Your task to perform on an android device: delete the emails in spam in the gmail app Image 0: 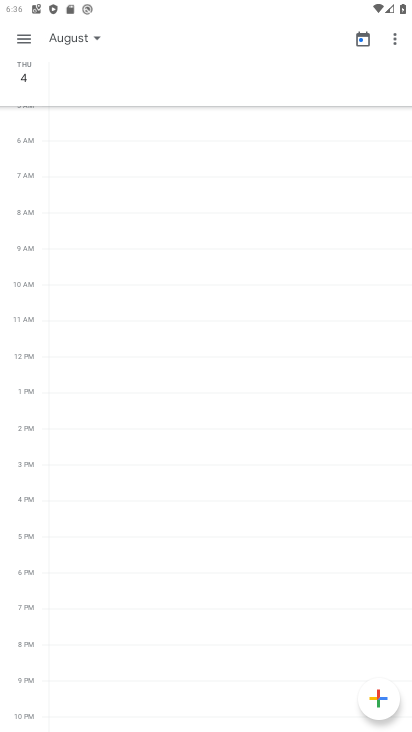
Step 0: press home button
Your task to perform on an android device: delete the emails in spam in the gmail app Image 1: 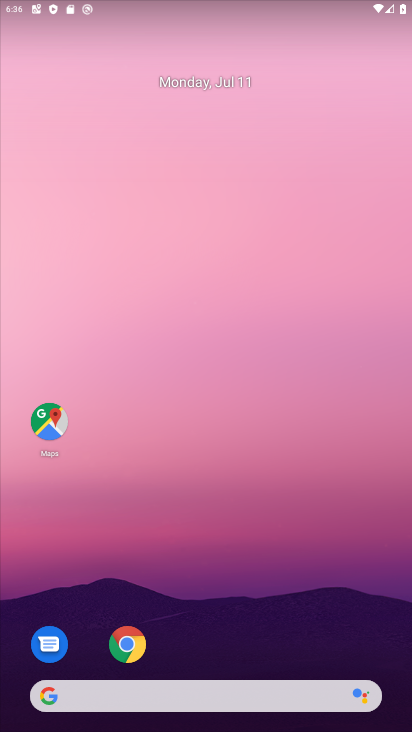
Step 1: drag from (273, 712) to (262, 100)
Your task to perform on an android device: delete the emails in spam in the gmail app Image 2: 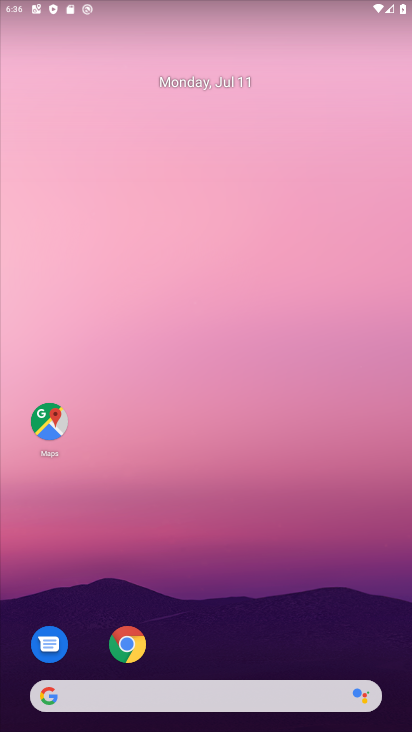
Step 2: drag from (323, 707) to (338, 2)
Your task to perform on an android device: delete the emails in spam in the gmail app Image 3: 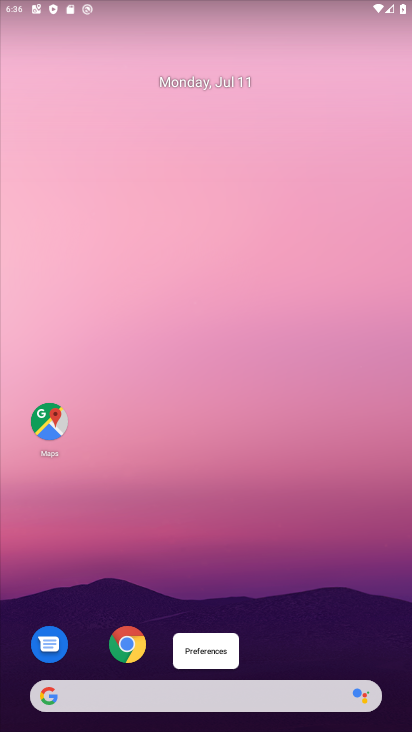
Step 3: click (351, 500)
Your task to perform on an android device: delete the emails in spam in the gmail app Image 4: 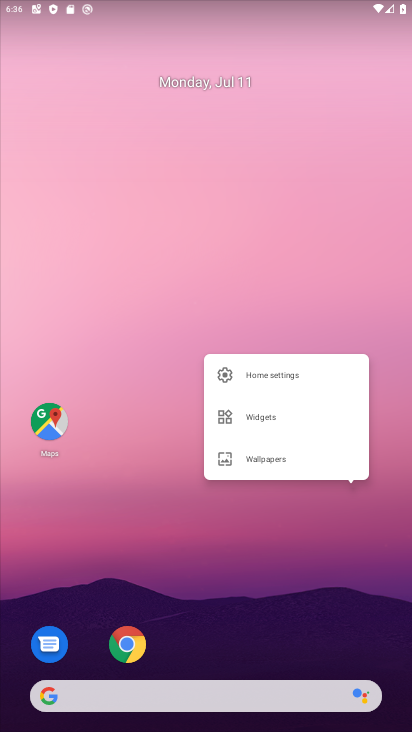
Step 4: drag from (252, 689) to (255, 444)
Your task to perform on an android device: delete the emails in spam in the gmail app Image 5: 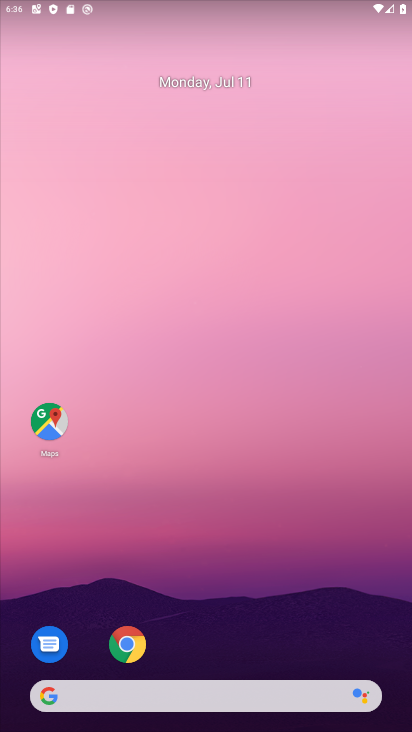
Step 5: drag from (254, 542) to (241, 50)
Your task to perform on an android device: delete the emails in spam in the gmail app Image 6: 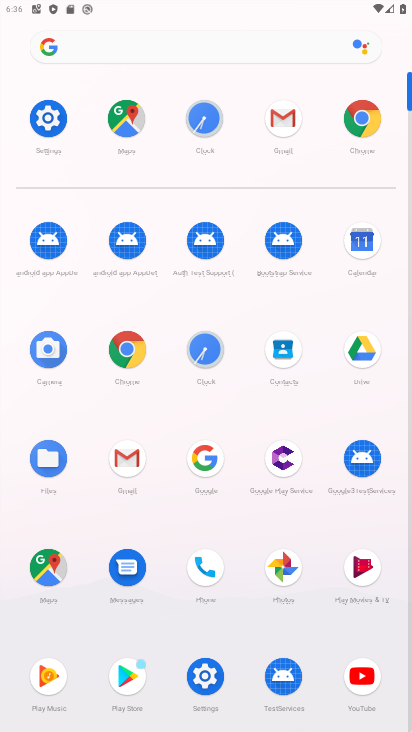
Step 6: click (136, 458)
Your task to perform on an android device: delete the emails in spam in the gmail app Image 7: 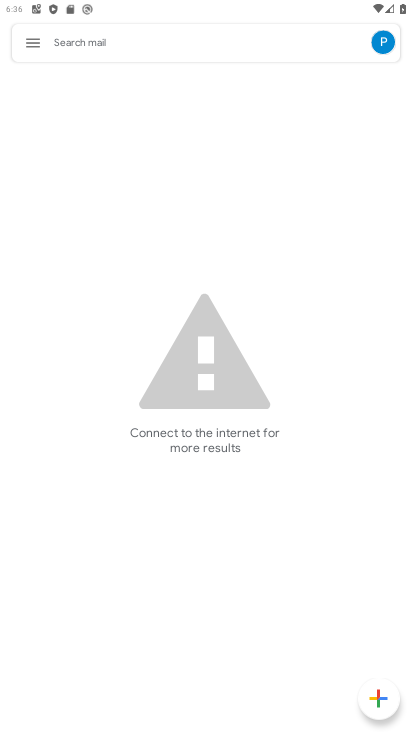
Step 7: click (25, 38)
Your task to perform on an android device: delete the emails in spam in the gmail app Image 8: 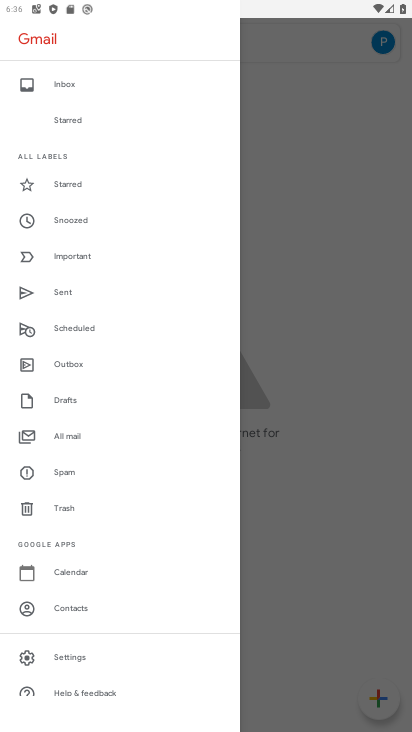
Step 8: click (76, 466)
Your task to perform on an android device: delete the emails in spam in the gmail app Image 9: 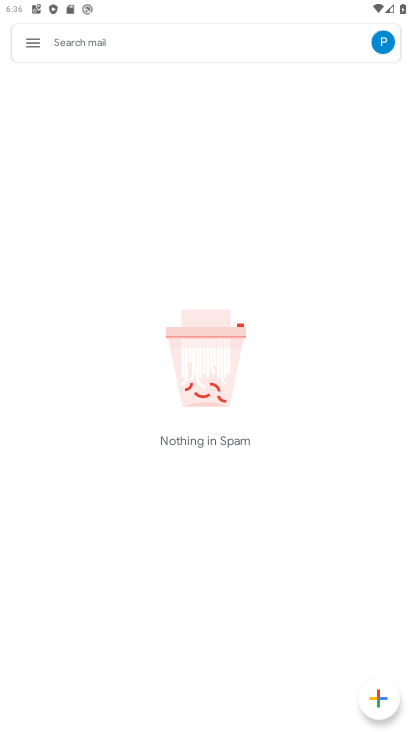
Step 9: task complete